Your task to perform on an android device: see tabs open on other devices in the chrome app Image 0: 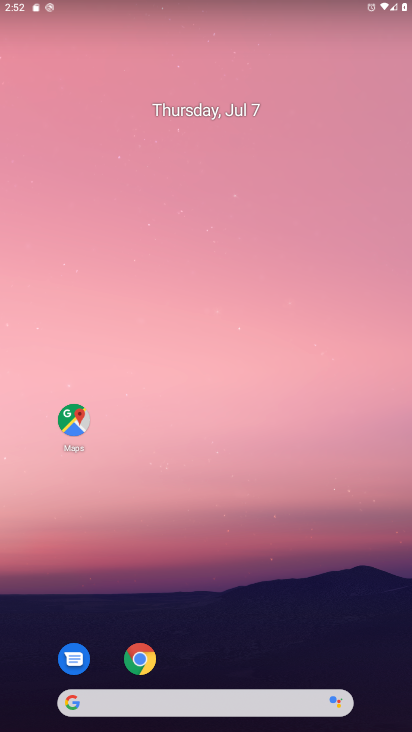
Step 0: click (144, 671)
Your task to perform on an android device: see tabs open on other devices in the chrome app Image 1: 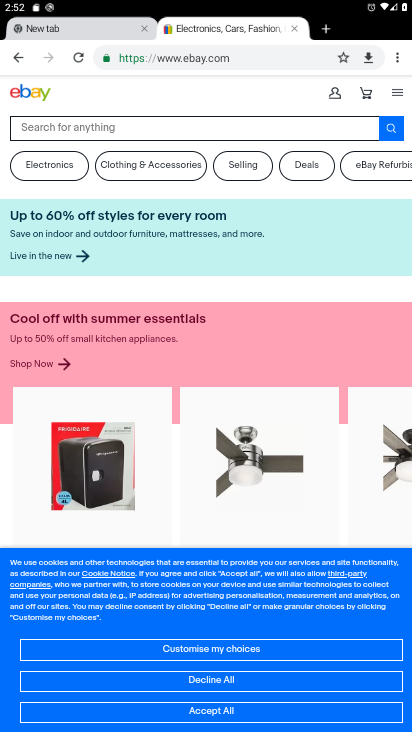
Step 1: task complete